Your task to perform on an android device: Open maps Image 0: 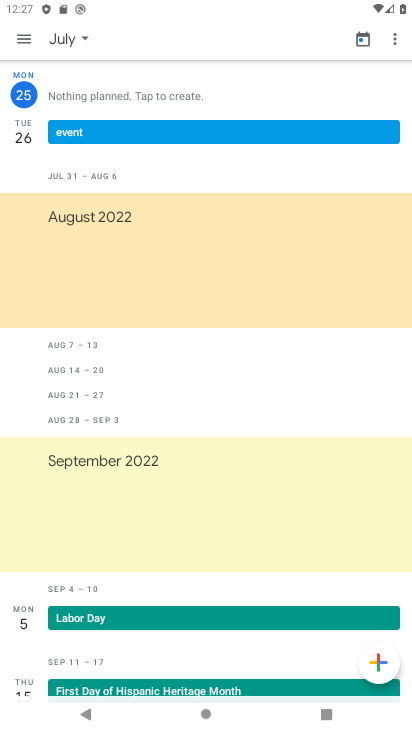
Step 0: press home button
Your task to perform on an android device: Open maps Image 1: 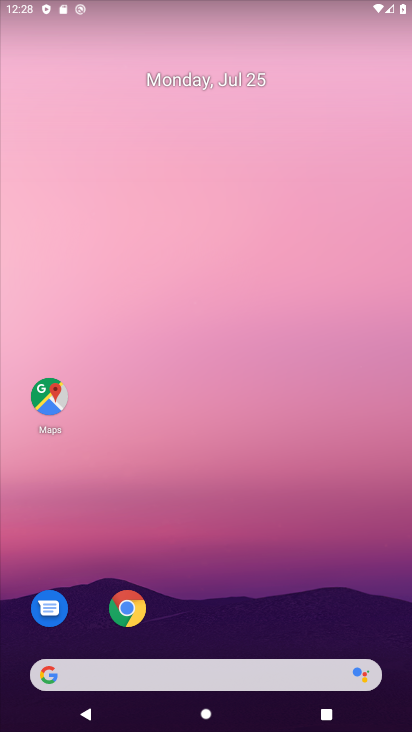
Step 1: drag from (237, 591) to (265, 107)
Your task to perform on an android device: Open maps Image 2: 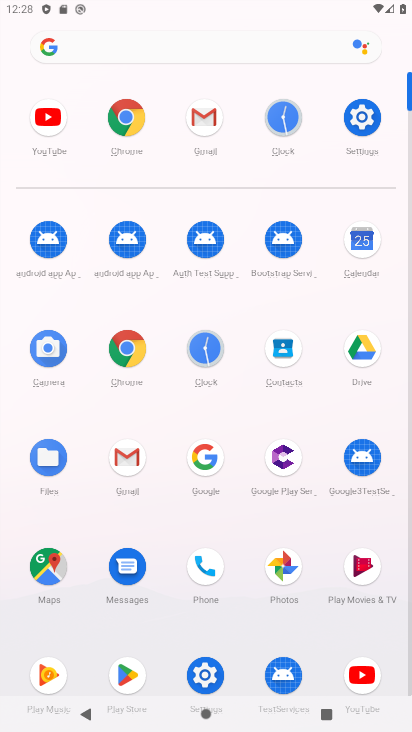
Step 2: click (49, 563)
Your task to perform on an android device: Open maps Image 3: 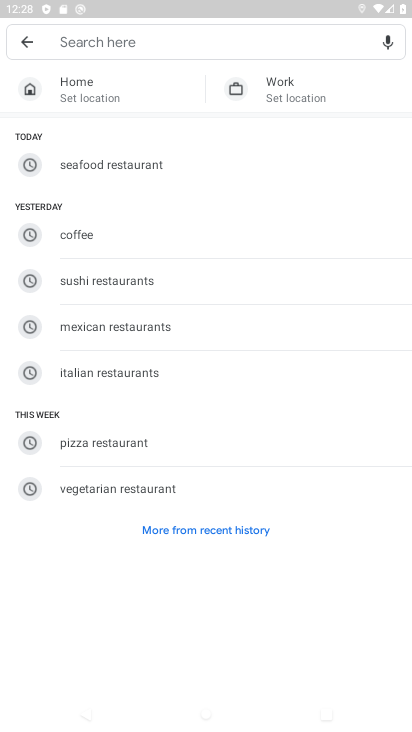
Step 3: click (375, 161)
Your task to perform on an android device: Open maps Image 4: 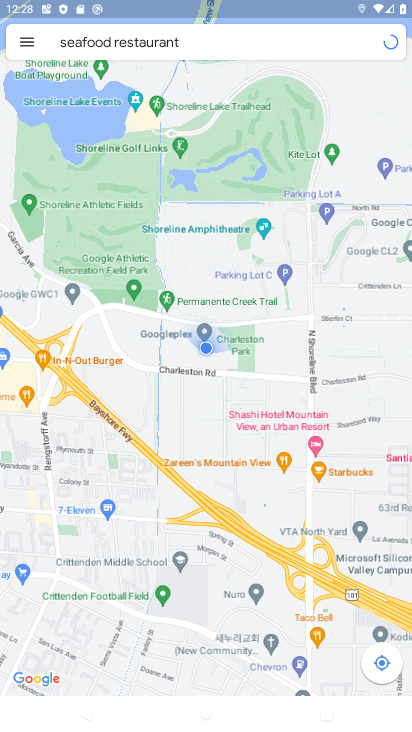
Step 4: task complete